Your task to perform on an android device: toggle sleep mode Image 0: 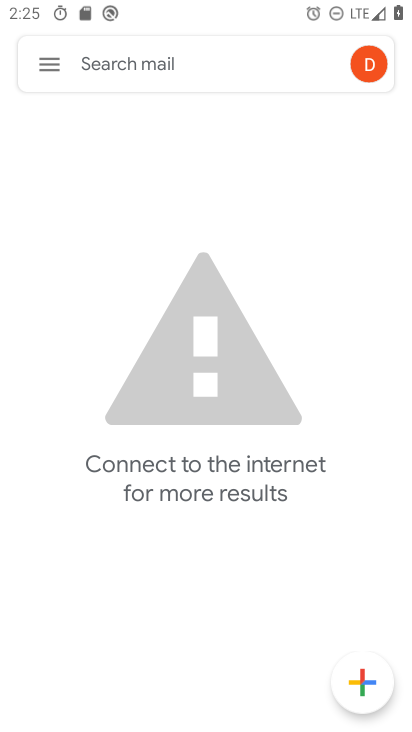
Step 0: press home button
Your task to perform on an android device: toggle sleep mode Image 1: 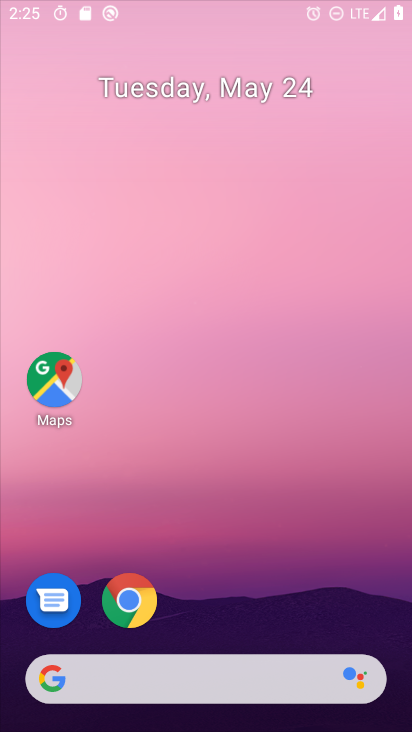
Step 1: drag from (281, 576) to (306, 176)
Your task to perform on an android device: toggle sleep mode Image 2: 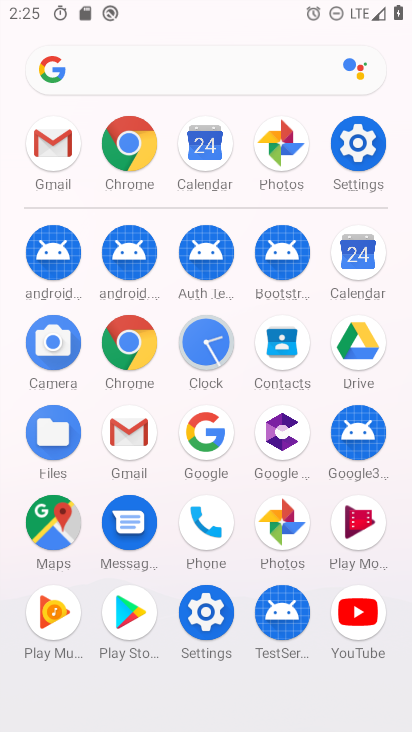
Step 2: click (212, 606)
Your task to perform on an android device: toggle sleep mode Image 3: 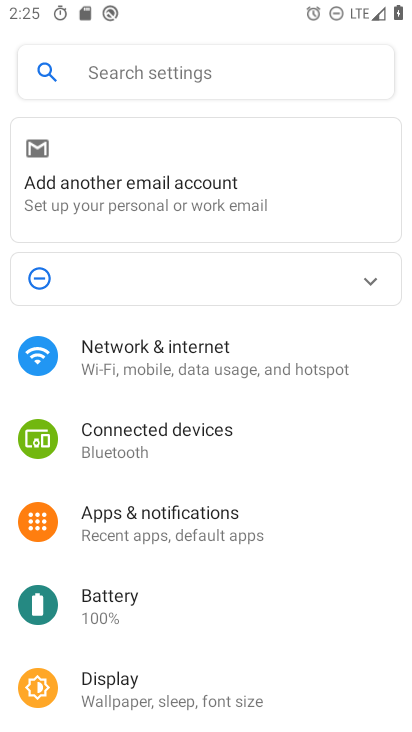
Step 3: drag from (168, 602) to (261, 212)
Your task to perform on an android device: toggle sleep mode Image 4: 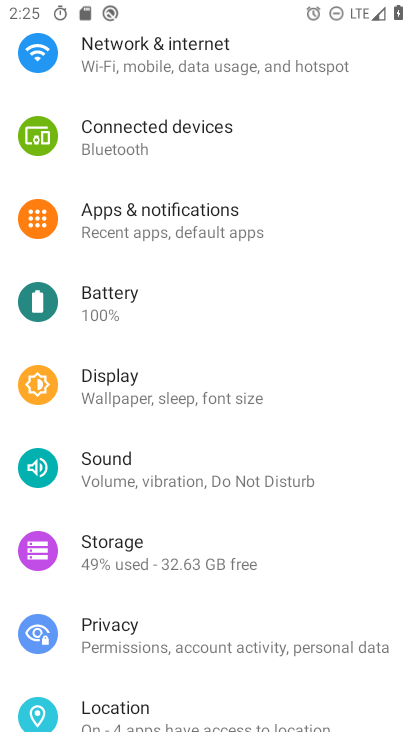
Step 4: drag from (200, 495) to (251, 422)
Your task to perform on an android device: toggle sleep mode Image 5: 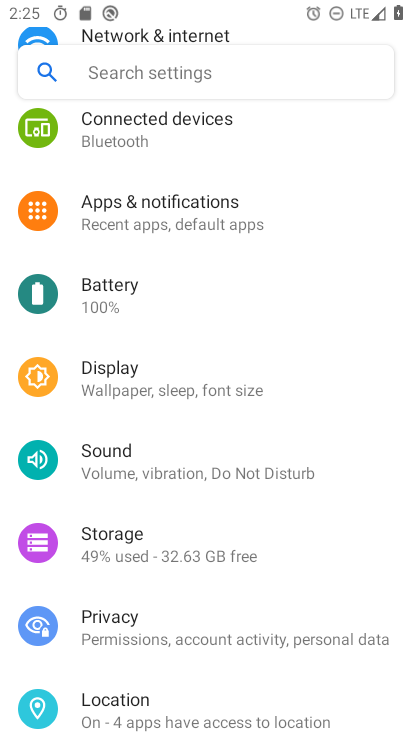
Step 5: click (169, 397)
Your task to perform on an android device: toggle sleep mode Image 6: 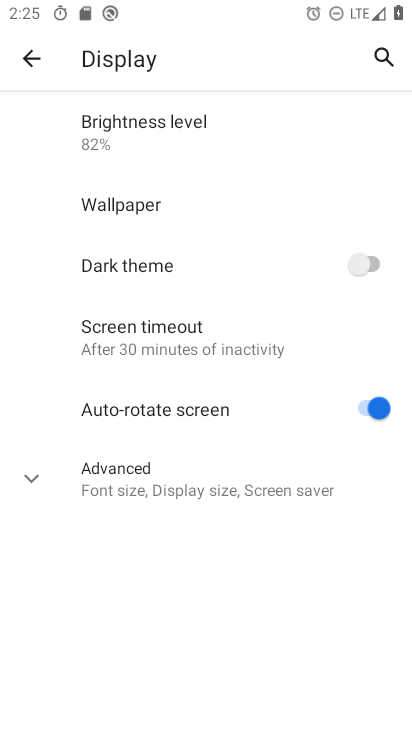
Step 6: click (188, 349)
Your task to perform on an android device: toggle sleep mode Image 7: 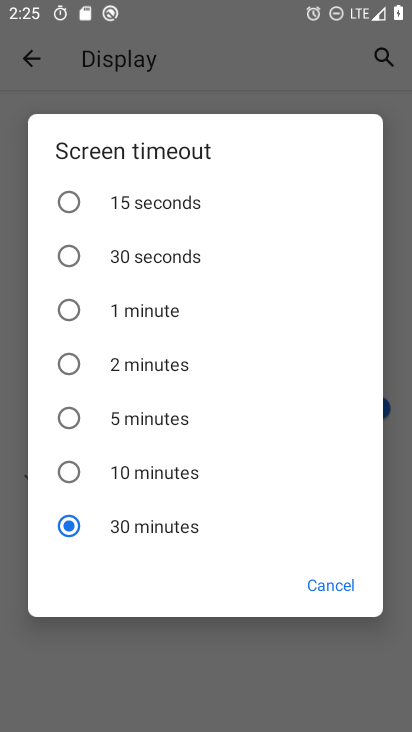
Step 7: click (125, 461)
Your task to perform on an android device: toggle sleep mode Image 8: 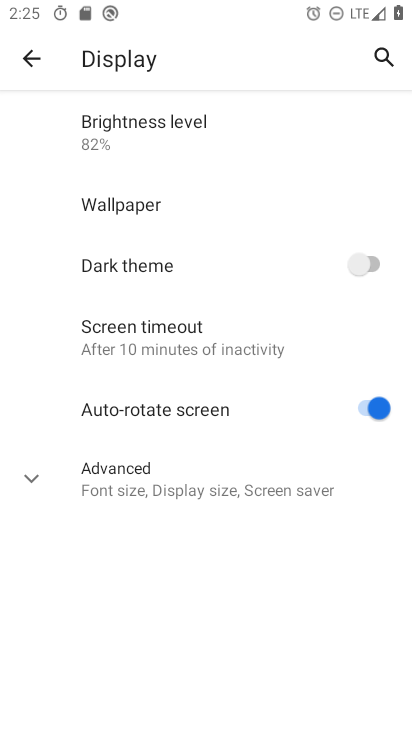
Step 8: task complete